Your task to perform on an android device: When is my next meeting? Image 0: 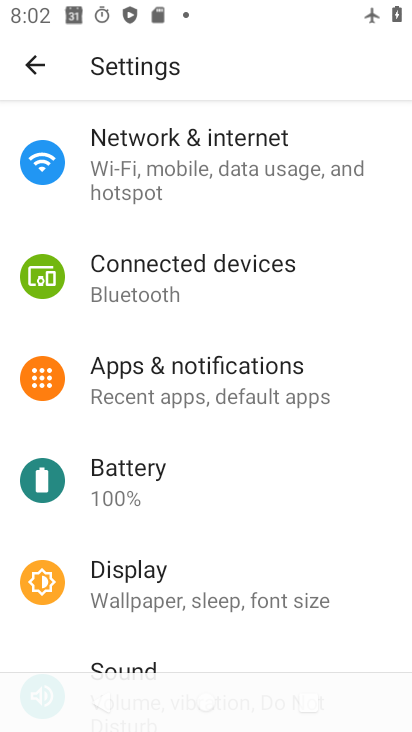
Step 0: press home button
Your task to perform on an android device: When is my next meeting? Image 1: 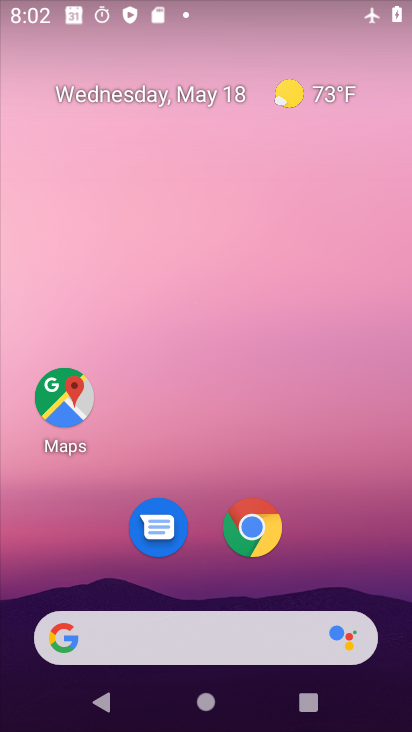
Step 1: drag from (399, 712) to (387, 53)
Your task to perform on an android device: When is my next meeting? Image 2: 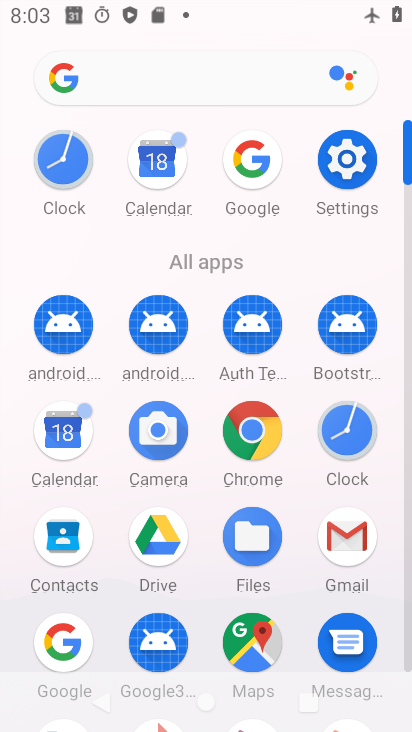
Step 2: click (55, 426)
Your task to perform on an android device: When is my next meeting? Image 3: 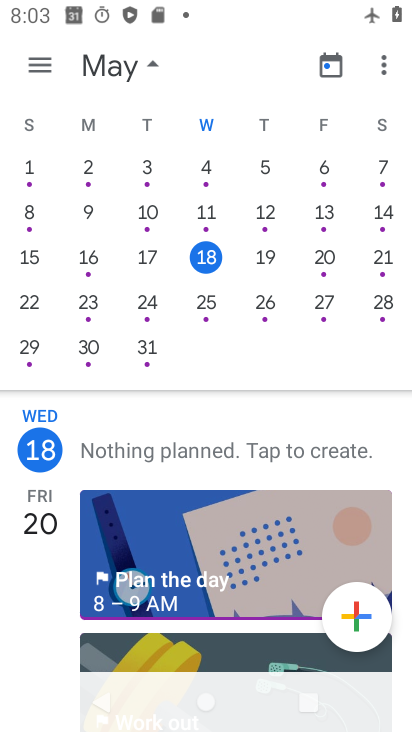
Step 3: click (35, 62)
Your task to perform on an android device: When is my next meeting? Image 4: 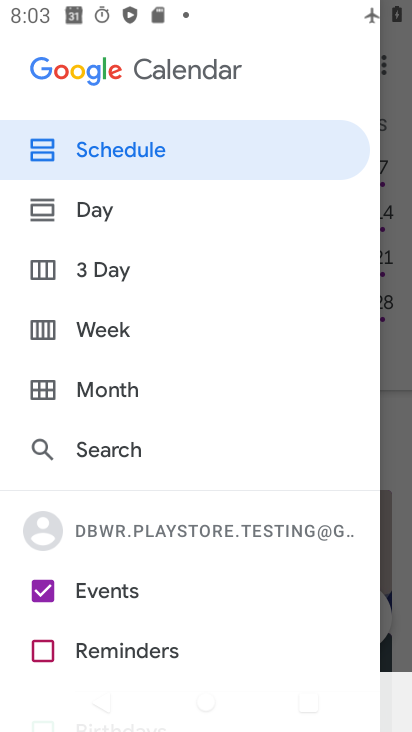
Step 4: click (103, 142)
Your task to perform on an android device: When is my next meeting? Image 5: 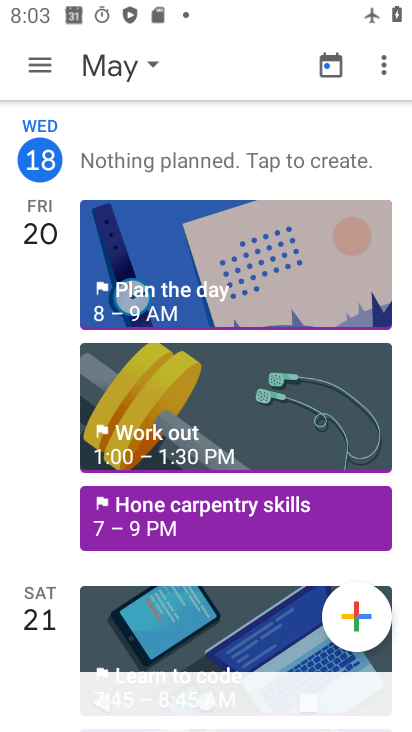
Step 5: task complete